Your task to perform on an android device: Search for the best rated desk chair on Article.com Image 0: 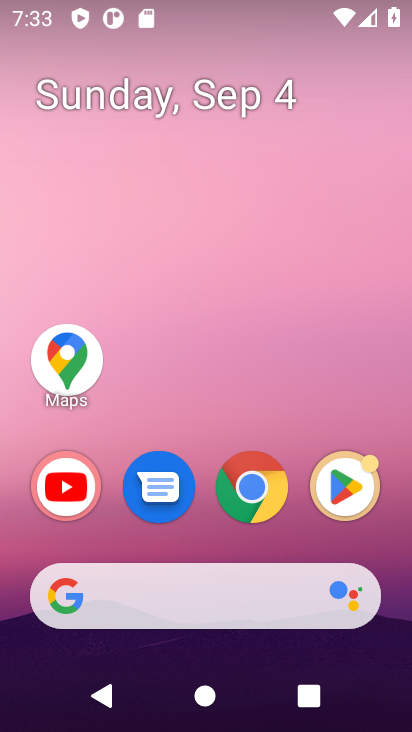
Step 0: click (196, 50)
Your task to perform on an android device: Search for the best rated desk chair on Article.com Image 1: 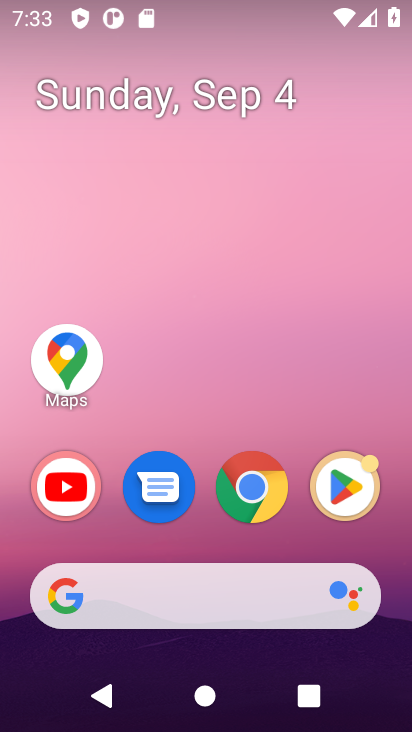
Step 1: click (171, 590)
Your task to perform on an android device: Search for the best rated desk chair on Article.com Image 2: 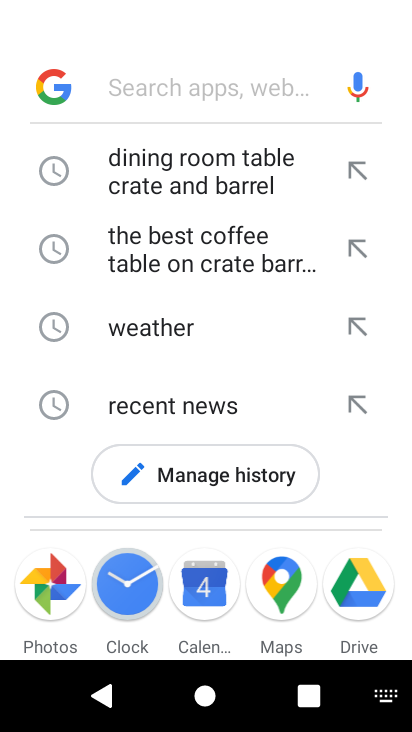
Step 2: type " the best rated desk chair on Article.com"
Your task to perform on an android device: Search for the best rated desk chair on Article.com Image 3: 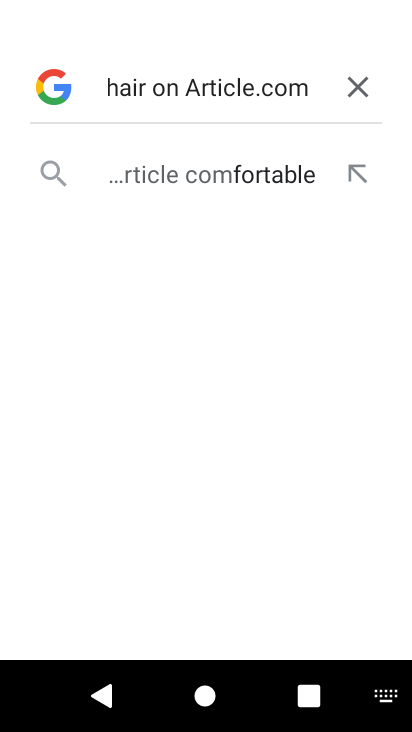
Step 3: click (209, 176)
Your task to perform on an android device: Search for the best rated desk chair on Article.com Image 4: 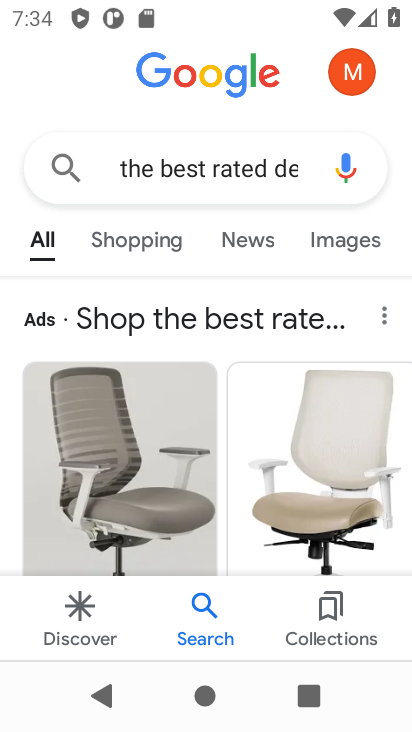
Step 4: task complete